Your task to perform on an android device: Open maps Image 0: 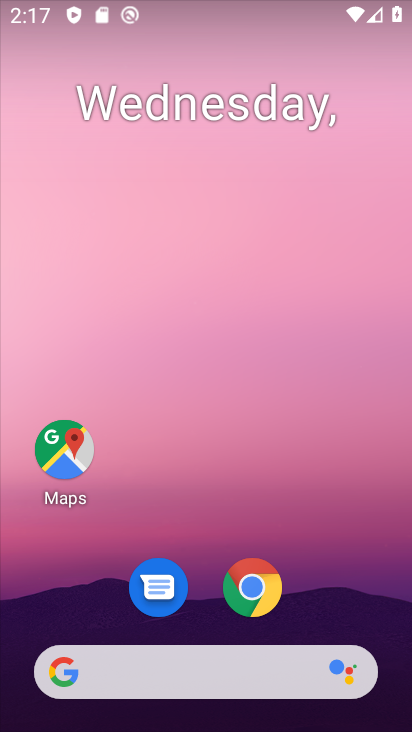
Step 0: click (83, 441)
Your task to perform on an android device: Open maps Image 1: 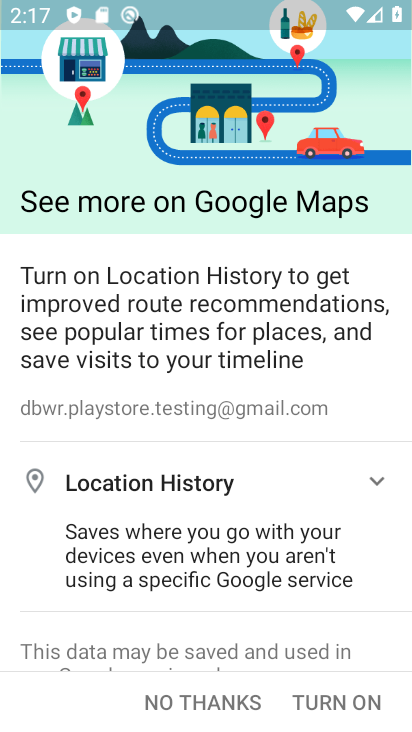
Step 1: click (212, 711)
Your task to perform on an android device: Open maps Image 2: 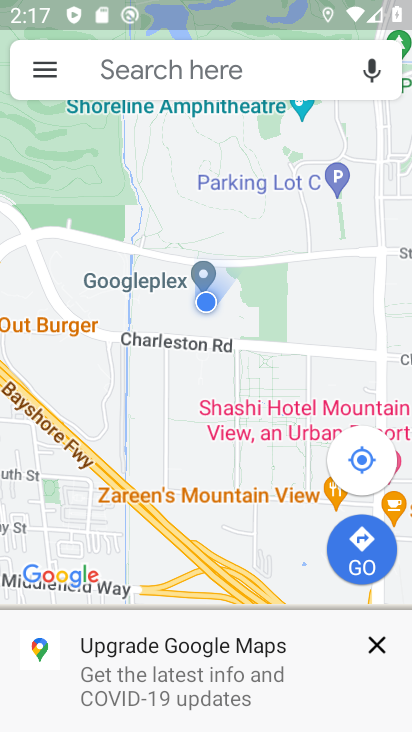
Step 2: task complete